Your task to perform on an android device: allow cookies in the chrome app Image 0: 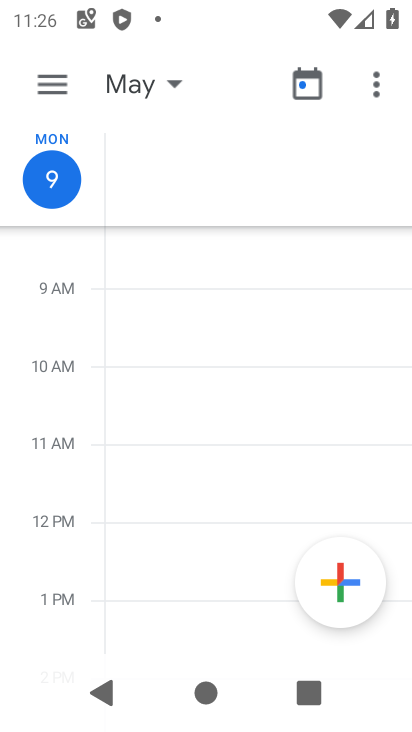
Step 0: press home button
Your task to perform on an android device: allow cookies in the chrome app Image 1: 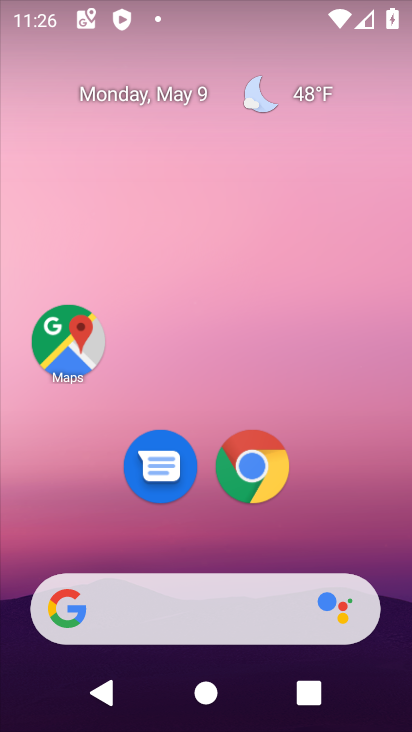
Step 1: click (254, 467)
Your task to perform on an android device: allow cookies in the chrome app Image 2: 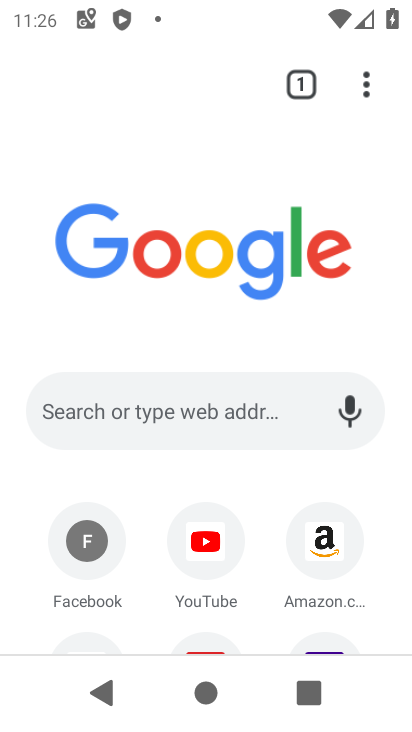
Step 2: click (368, 95)
Your task to perform on an android device: allow cookies in the chrome app Image 3: 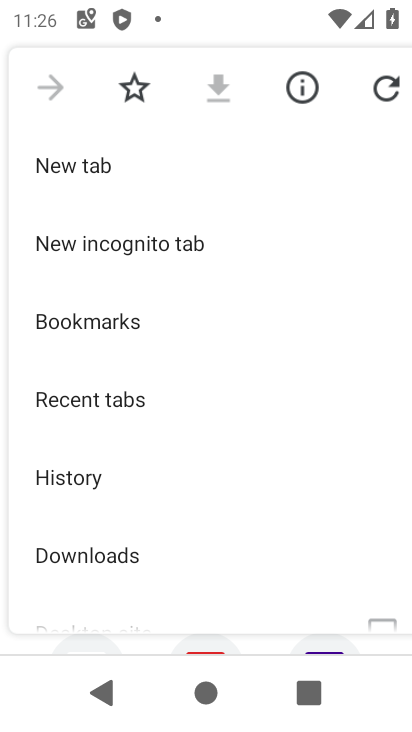
Step 3: drag from (169, 560) to (240, 94)
Your task to perform on an android device: allow cookies in the chrome app Image 4: 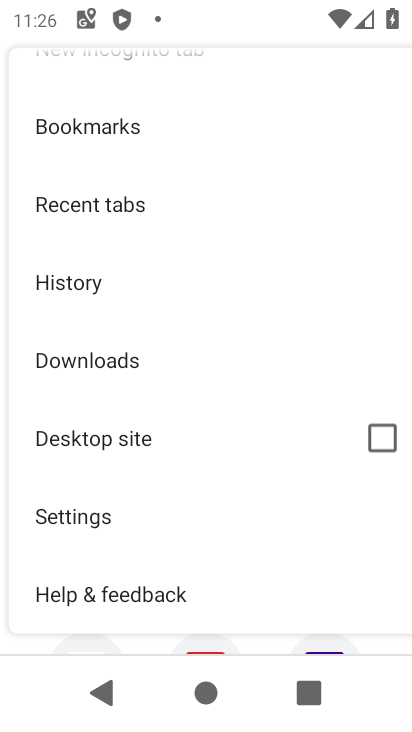
Step 4: click (84, 527)
Your task to perform on an android device: allow cookies in the chrome app Image 5: 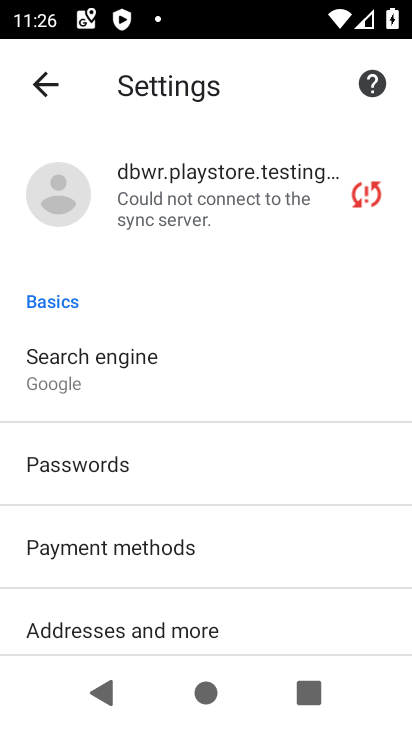
Step 5: drag from (251, 602) to (239, 190)
Your task to perform on an android device: allow cookies in the chrome app Image 6: 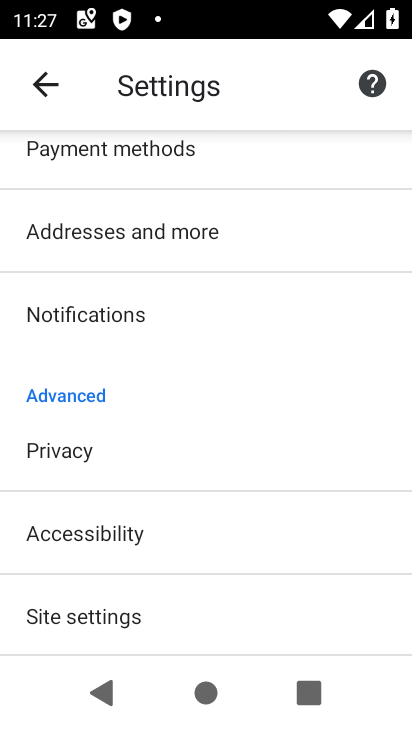
Step 6: drag from (199, 614) to (224, 276)
Your task to perform on an android device: allow cookies in the chrome app Image 7: 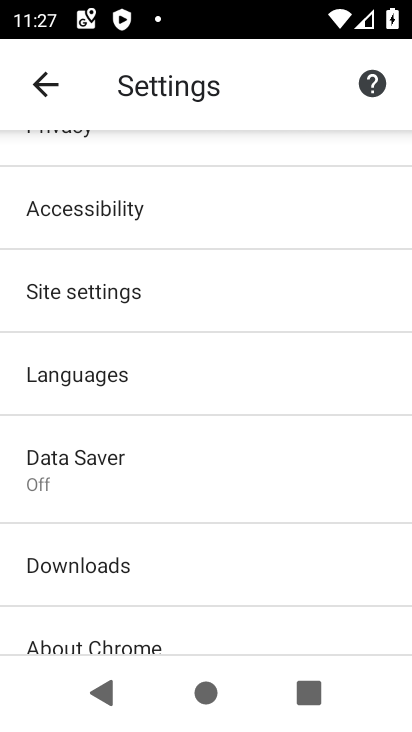
Step 7: click (53, 304)
Your task to perform on an android device: allow cookies in the chrome app Image 8: 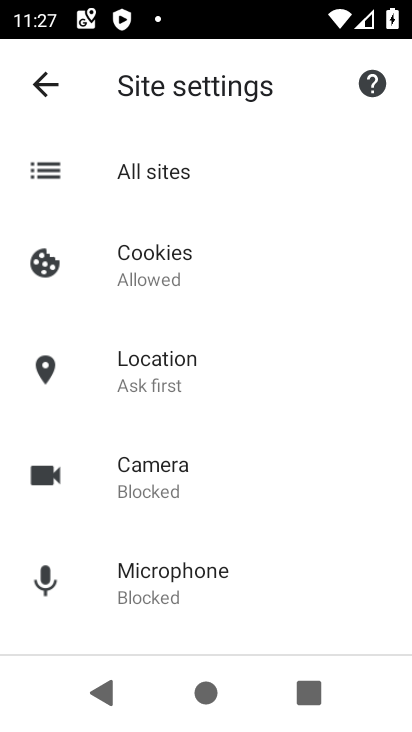
Step 8: click (118, 251)
Your task to perform on an android device: allow cookies in the chrome app Image 9: 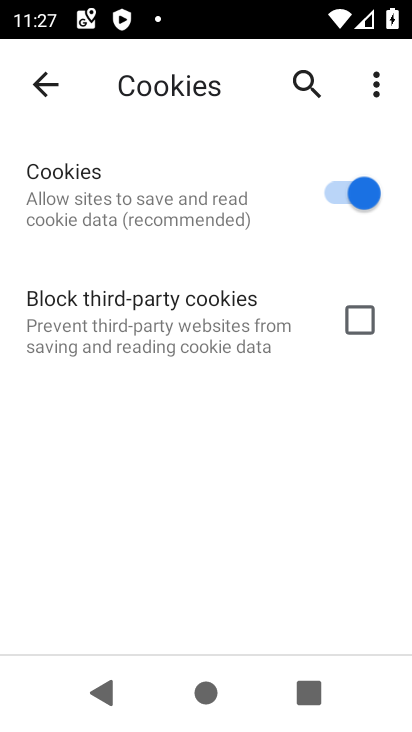
Step 9: task complete